Your task to perform on an android device: Go to settings Image 0: 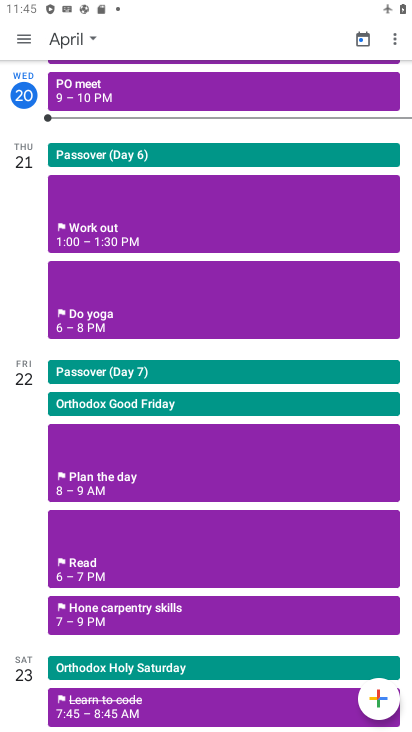
Step 0: press home button
Your task to perform on an android device: Go to settings Image 1: 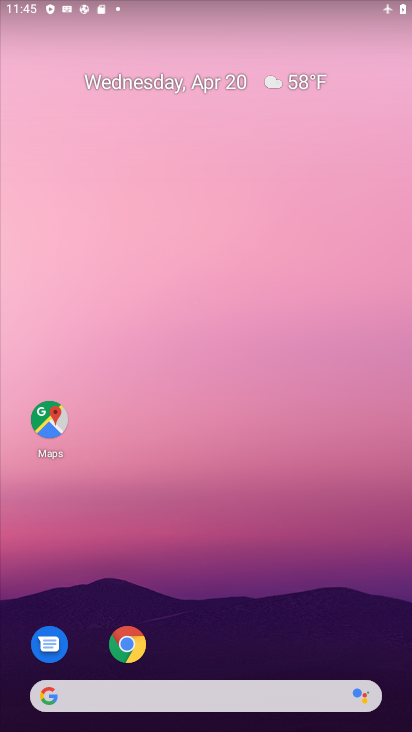
Step 1: drag from (170, 550) to (175, 80)
Your task to perform on an android device: Go to settings Image 2: 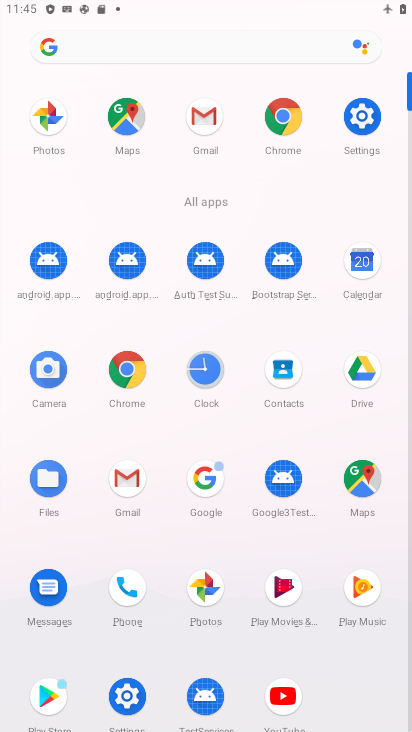
Step 2: click (368, 118)
Your task to perform on an android device: Go to settings Image 3: 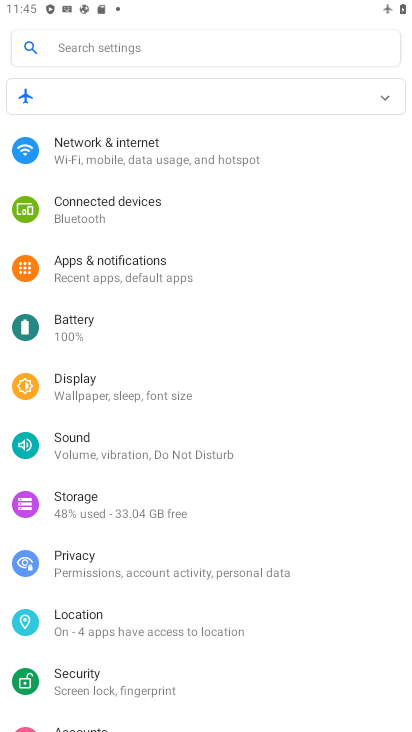
Step 3: task complete